Your task to perform on an android device: open a bookmark in the chrome app Image 0: 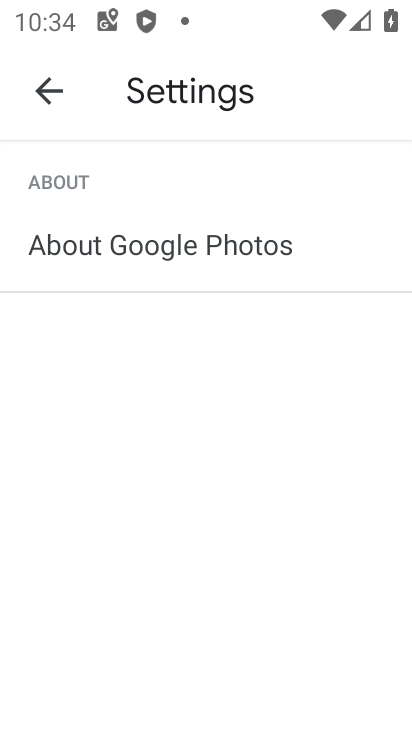
Step 0: press home button
Your task to perform on an android device: open a bookmark in the chrome app Image 1: 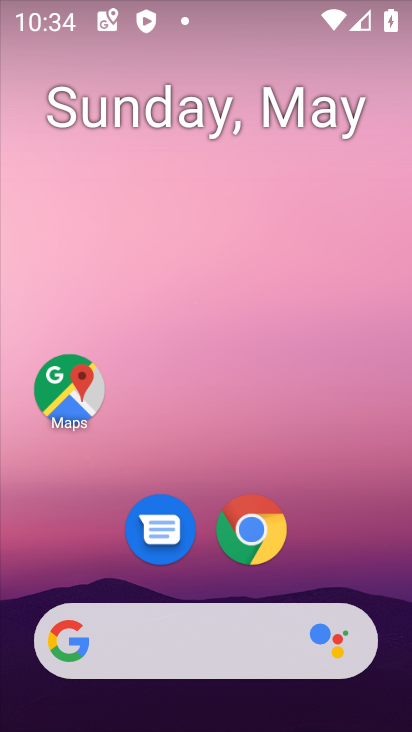
Step 1: click (260, 532)
Your task to perform on an android device: open a bookmark in the chrome app Image 2: 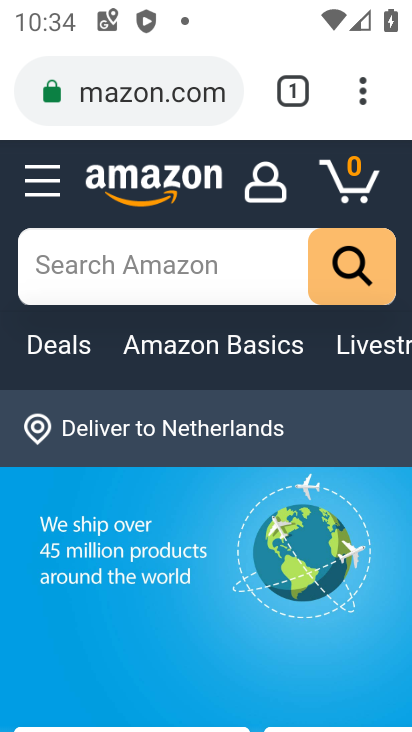
Step 2: drag from (366, 95) to (189, 345)
Your task to perform on an android device: open a bookmark in the chrome app Image 3: 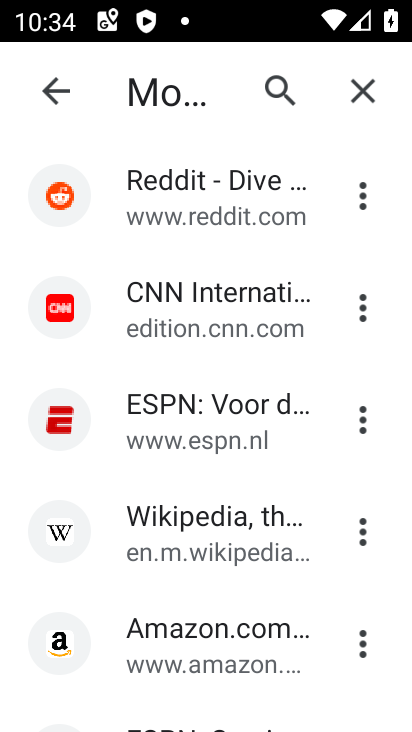
Step 3: click (196, 206)
Your task to perform on an android device: open a bookmark in the chrome app Image 4: 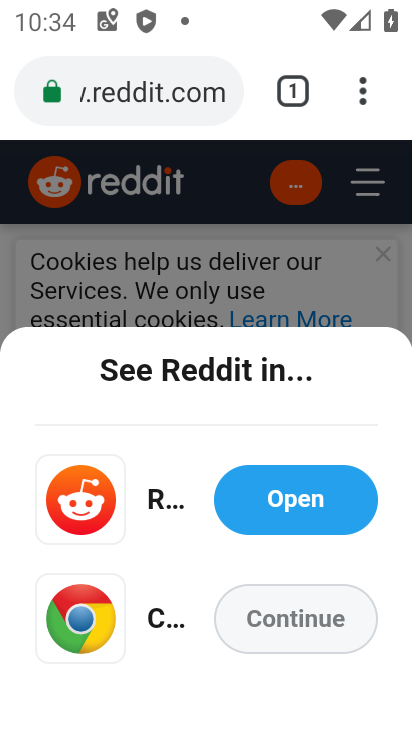
Step 4: task complete